Your task to perform on an android device: set the timer Image 0: 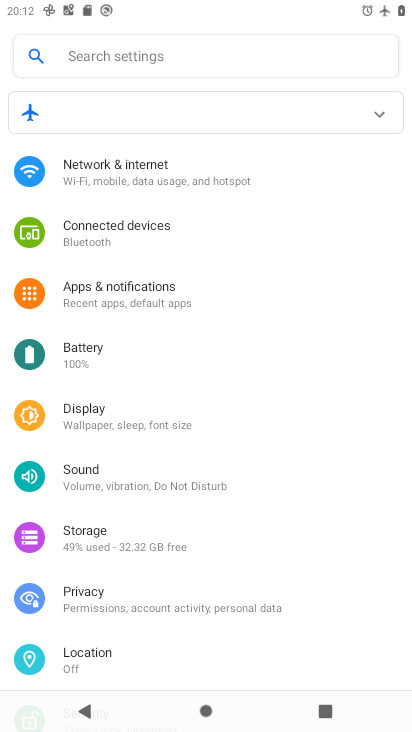
Step 0: press home button
Your task to perform on an android device: set the timer Image 1: 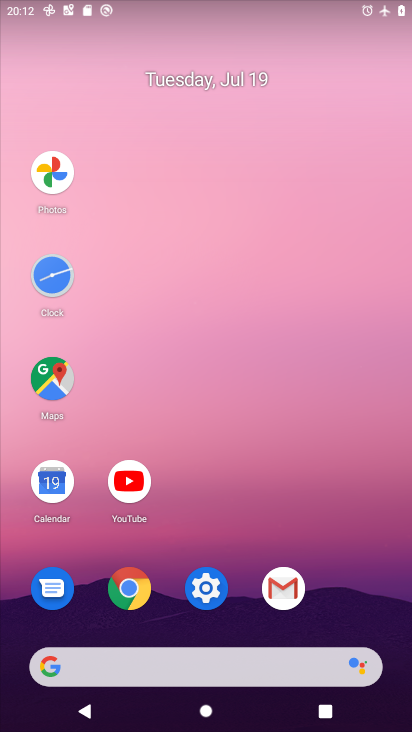
Step 1: click (45, 273)
Your task to perform on an android device: set the timer Image 2: 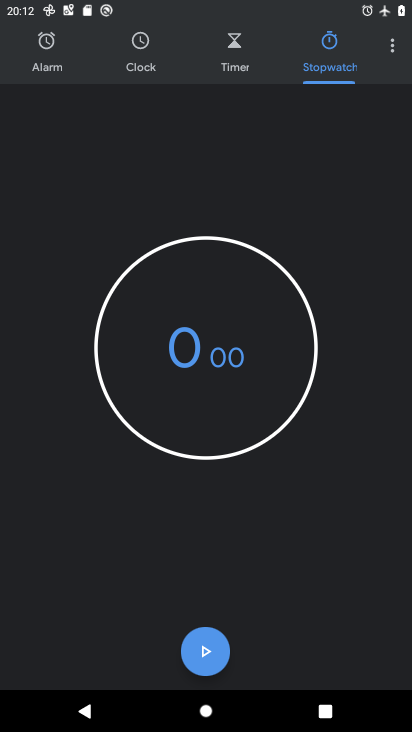
Step 2: click (244, 46)
Your task to perform on an android device: set the timer Image 3: 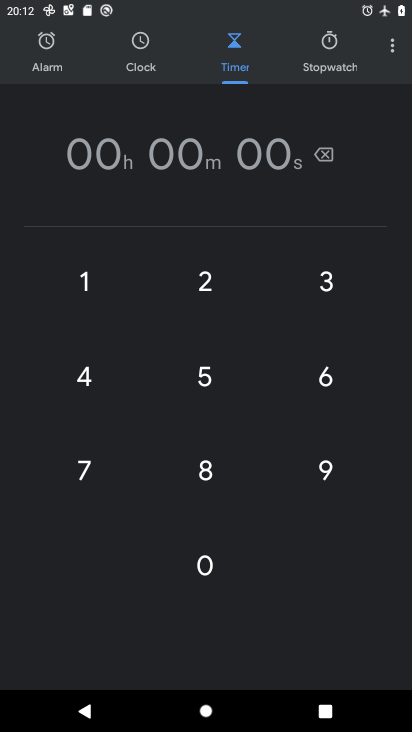
Step 3: click (96, 284)
Your task to perform on an android device: set the timer Image 4: 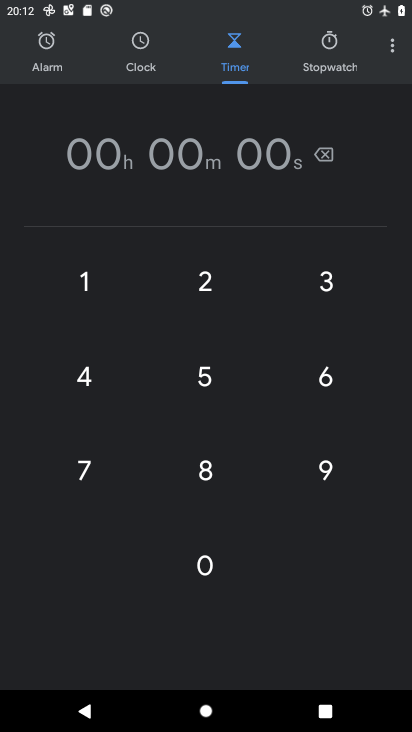
Step 4: click (96, 284)
Your task to perform on an android device: set the timer Image 5: 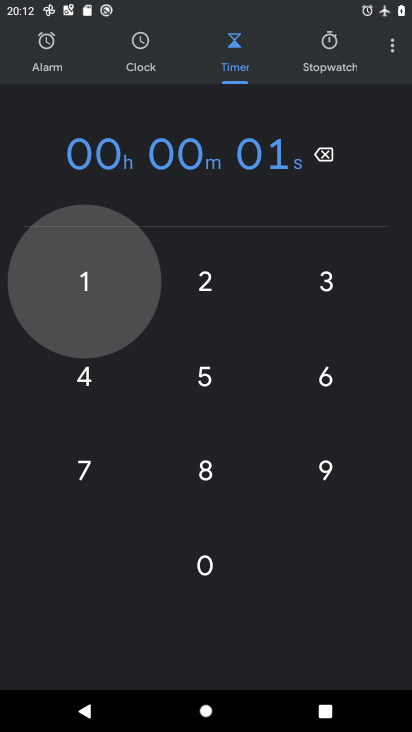
Step 5: click (96, 284)
Your task to perform on an android device: set the timer Image 6: 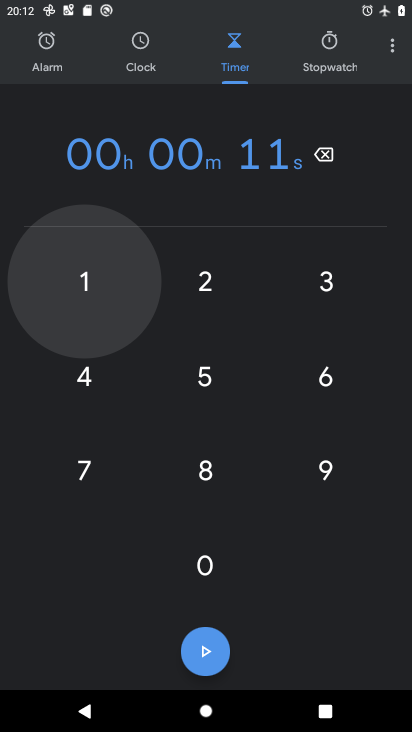
Step 6: click (96, 284)
Your task to perform on an android device: set the timer Image 7: 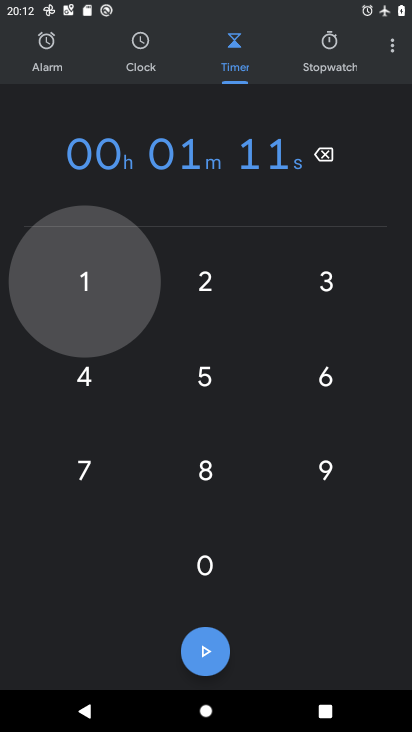
Step 7: click (96, 284)
Your task to perform on an android device: set the timer Image 8: 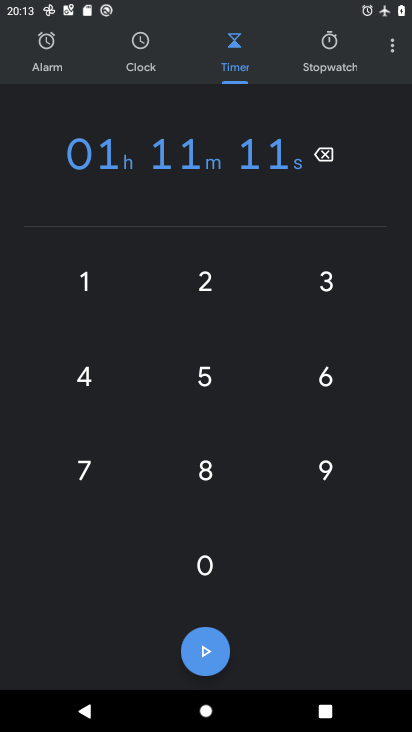
Step 8: click (86, 283)
Your task to perform on an android device: set the timer Image 9: 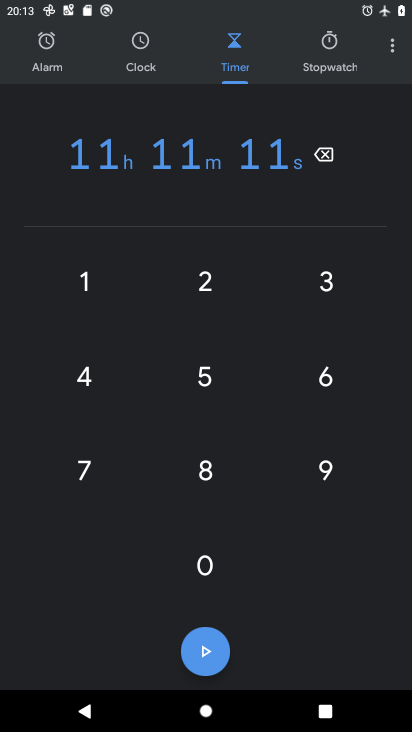
Step 9: task complete